Your task to perform on an android device: change the clock style Image 0: 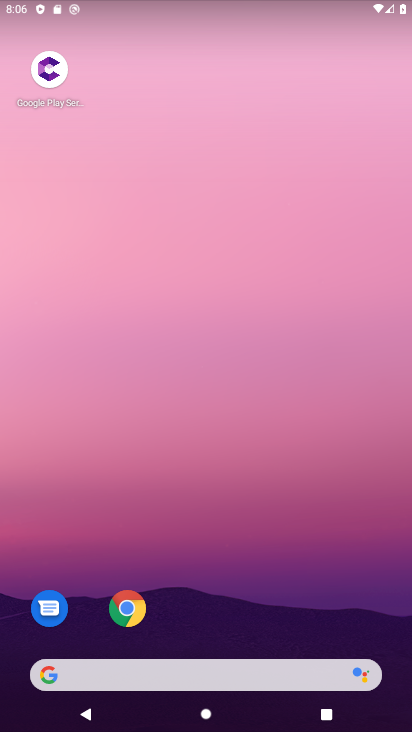
Step 0: drag from (177, 629) to (234, 65)
Your task to perform on an android device: change the clock style Image 1: 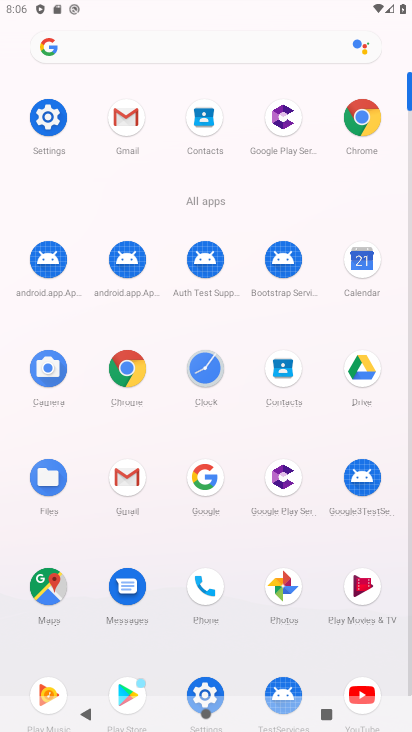
Step 1: click (206, 363)
Your task to perform on an android device: change the clock style Image 2: 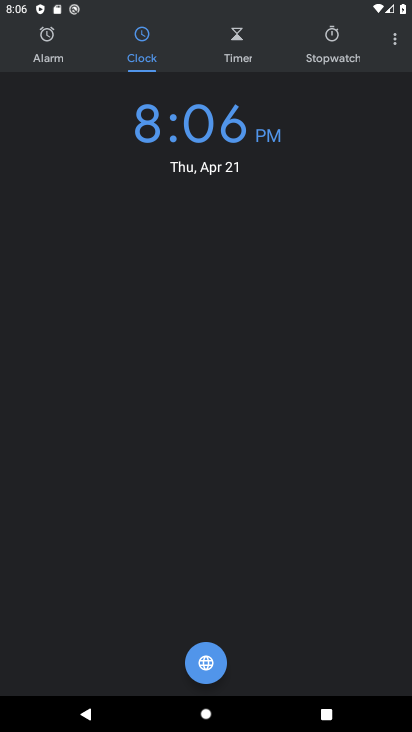
Step 2: click (391, 48)
Your task to perform on an android device: change the clock style Image 3: 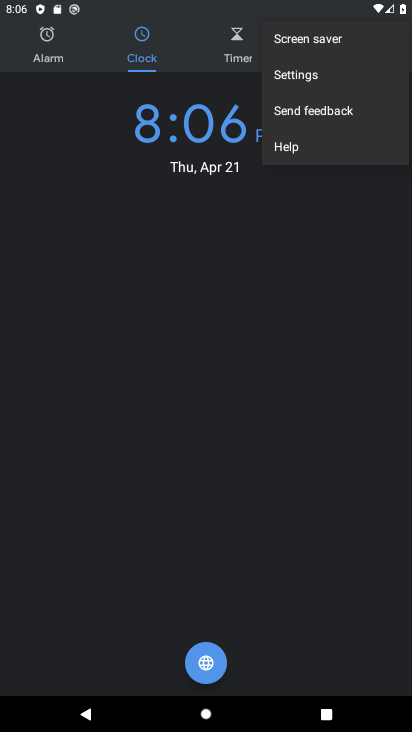
Step 3: click (361, 71)
Your task to perform on an android device: change the clock style Image 4: 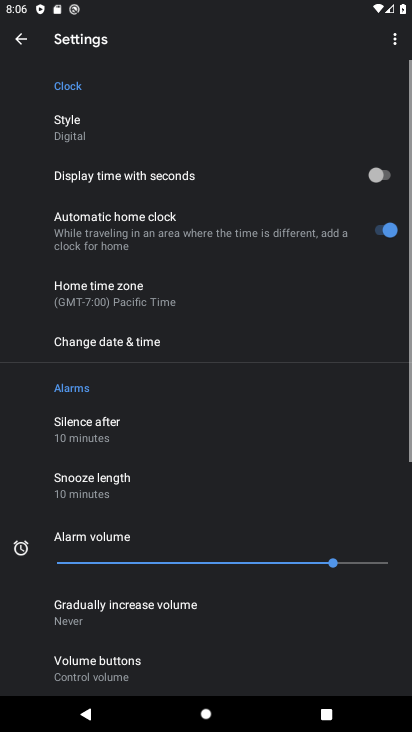
Step 4: click (144, 120)
Your task to perform on an android device: change the clock style Image 5: 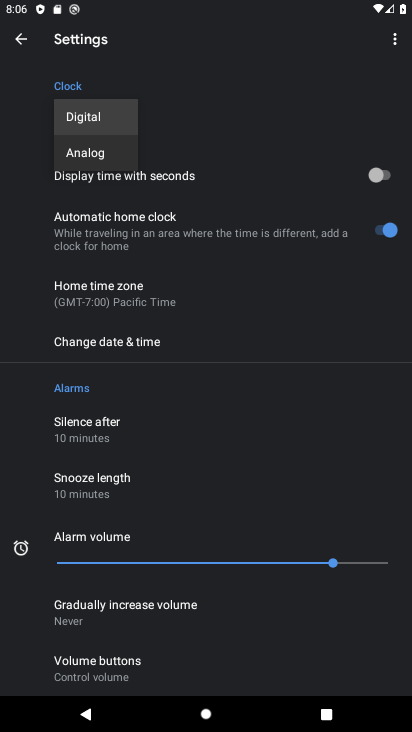
Step 5: click (100, 154)
Your task to perform on an android device: change the clock style Image 6: 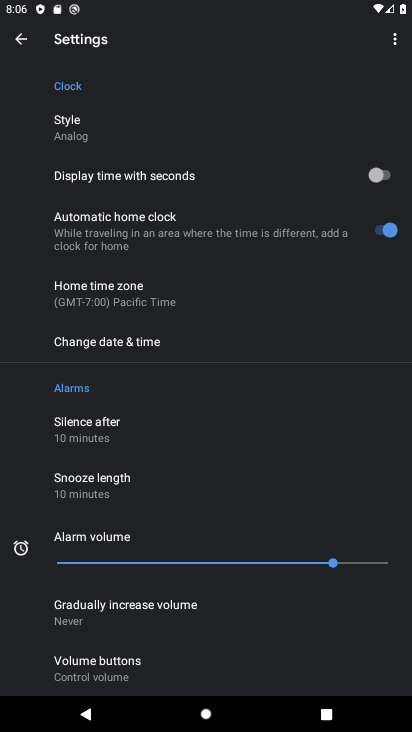
Step 6: task complete